Your task to perform on an android device: Open display settings Image 0: 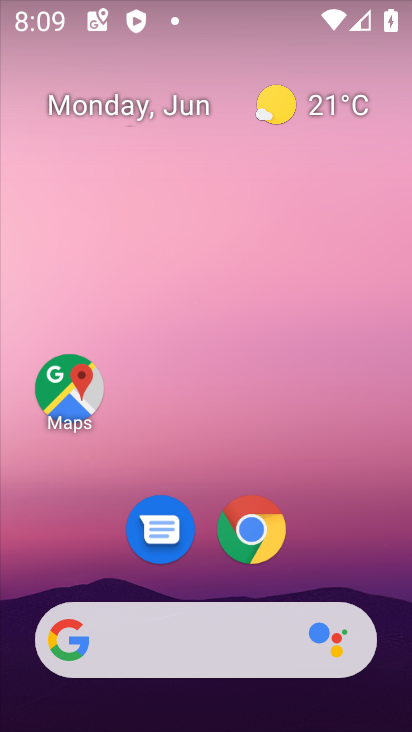
Step 0: drag from (300, 359) to (290, 262)
Your task to perform on an android device: Open display settings Image 1: 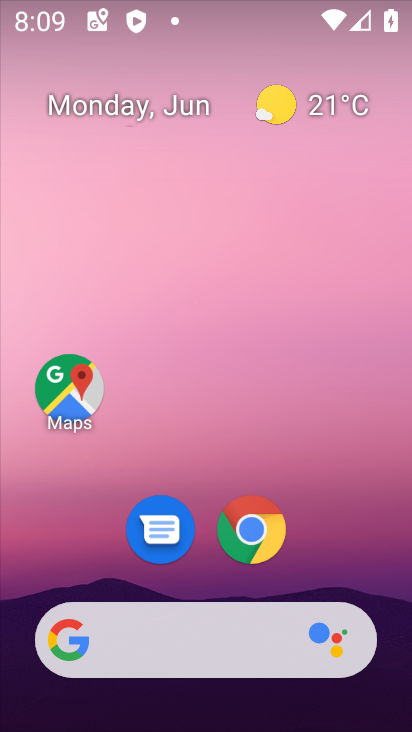
Step 1: drag from (345, 490) to (370, 92)
Your task to perform on an android device: Open display settings Image 2: 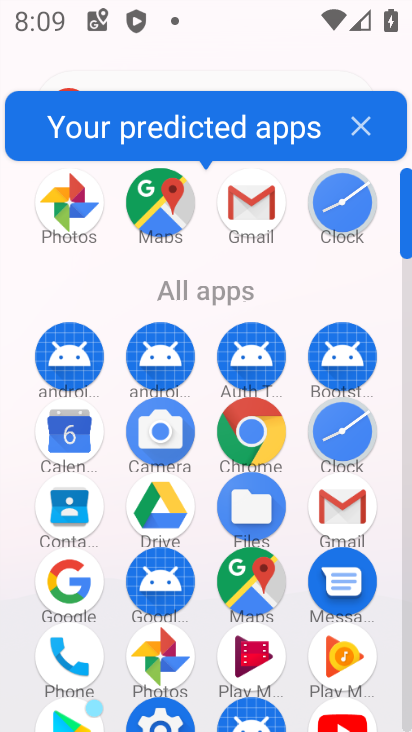
Step 2: click (403, 307)
Your task to perform on an android device: Open display settings Image 3: 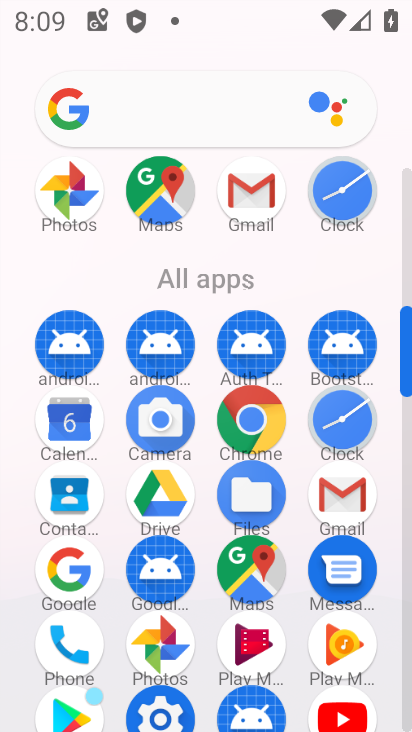
Step 3: click (411, 453)
Your task to perform on an android device: Open display settings Image 4: 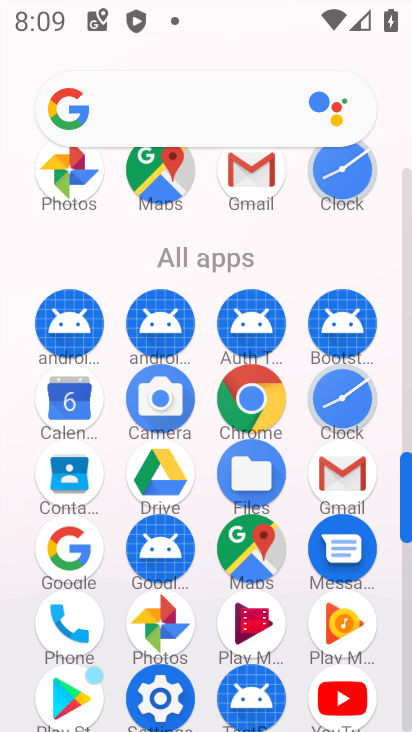
Step 4: click (406, 583)
Your task to perform on an android device: Open display settings Image 5: 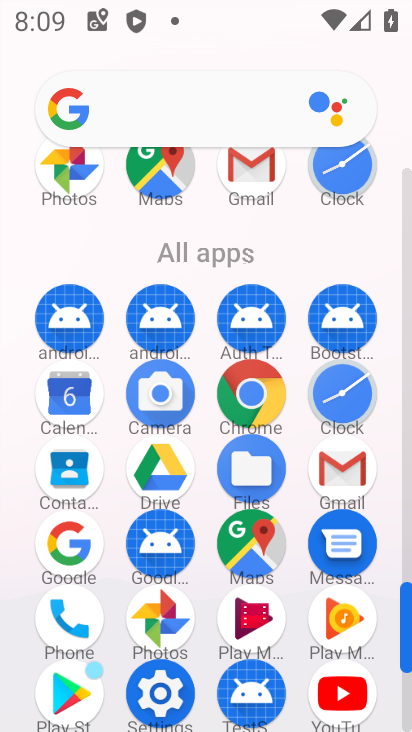
Step 5: click (169, 678)
Your task to perform on an android device: Open display settings Image 6: 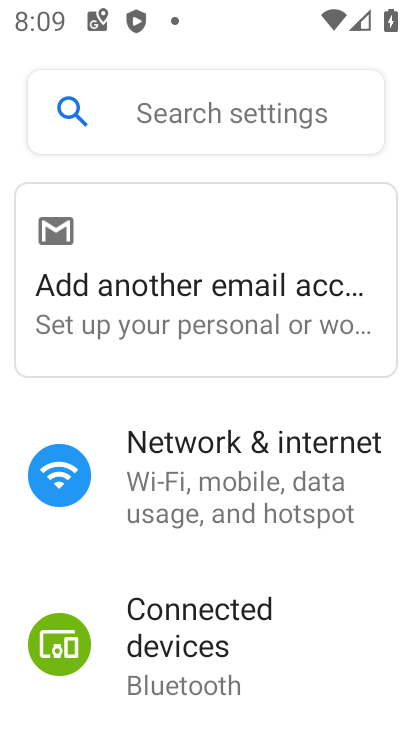
Step 6: drag from (241, 633) to (239, 43)
Your task to perform on an android device: Open display settings Image 7: 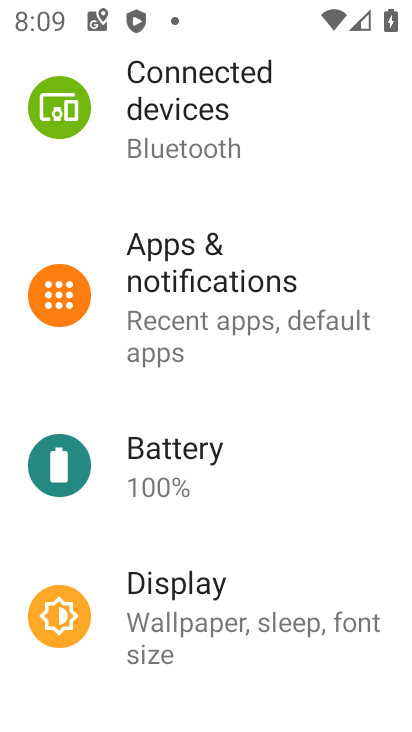
Step 7: click (228, 601)
Your task to perform on an android device: Open display settings Image 8: 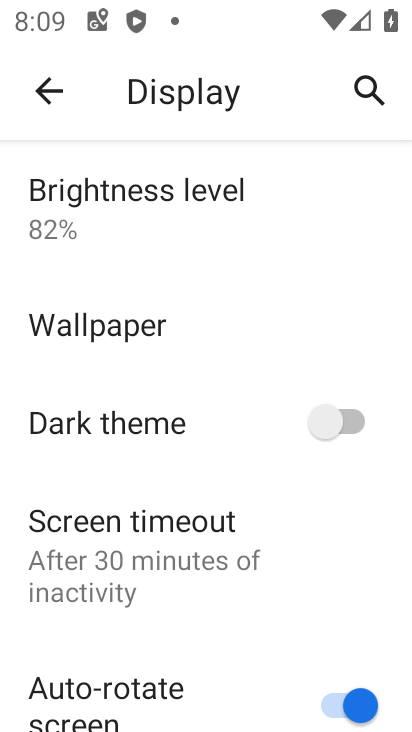
Step 8: task complete